Your task to perform on an android device: search for starred emails in the gmail app Image 0: 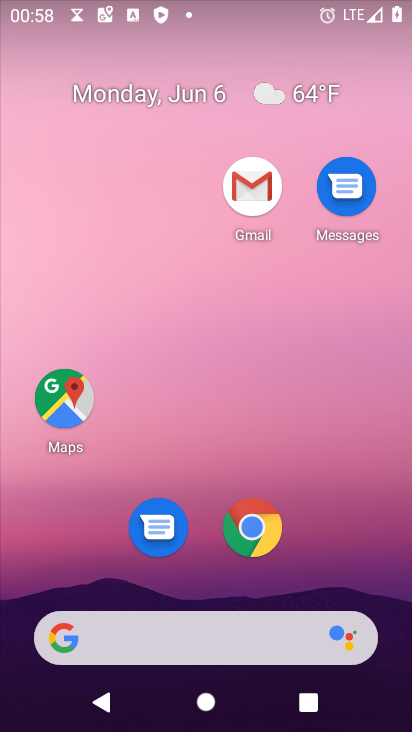
Step 0: drag from (318, 490) to (285, 60)
Your task to perform on an android device: search for starred emails in the gmail app Image 1: 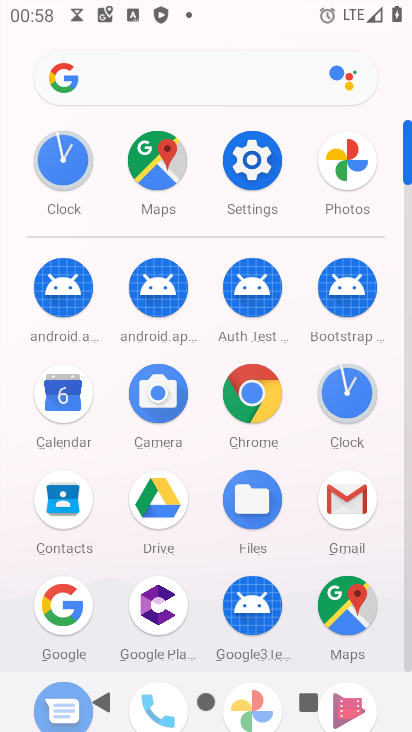
Step 1: click (352, 510)
Your task to perform on an android device: search for starred emails in the gmail app Image 2: 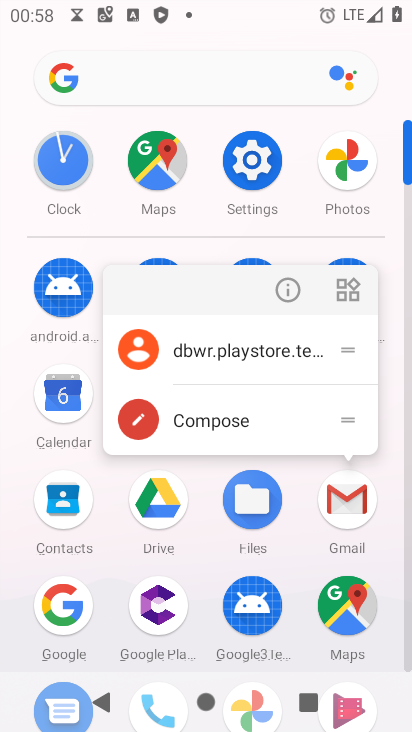
Step 2: click (357, 499)
Your task to perform on an android device: search for starred emails in the gmail app Image 3: 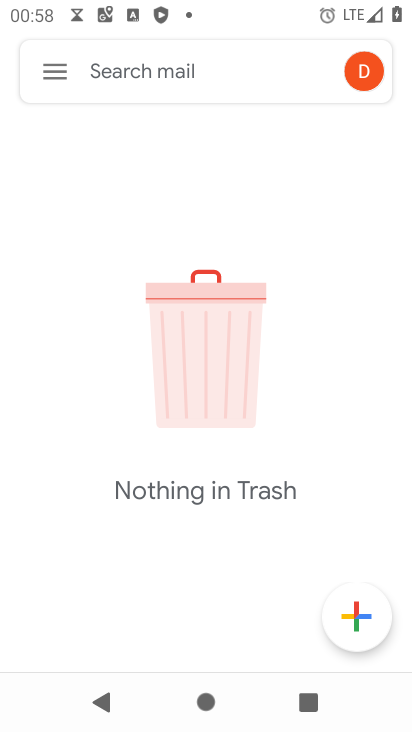
Step 3: click (46, 58)
Your task to perform on an android device: search for starred emails in the gmail app Image 4: 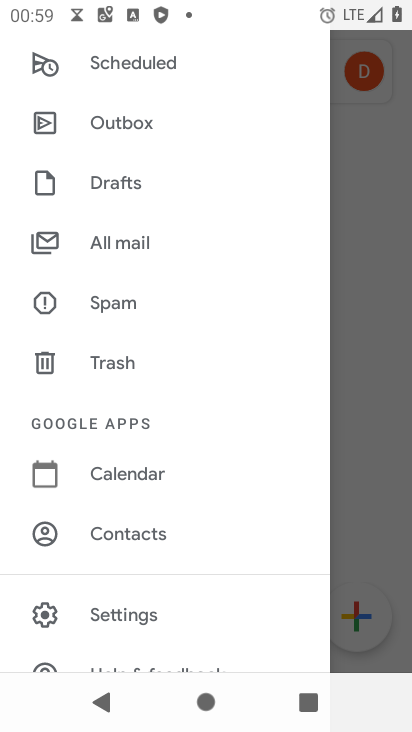
Step 4: drag from (171, 535) to (177, 193)
Your task to perform on an android device: search for starred emails in the gmail app Image 5: 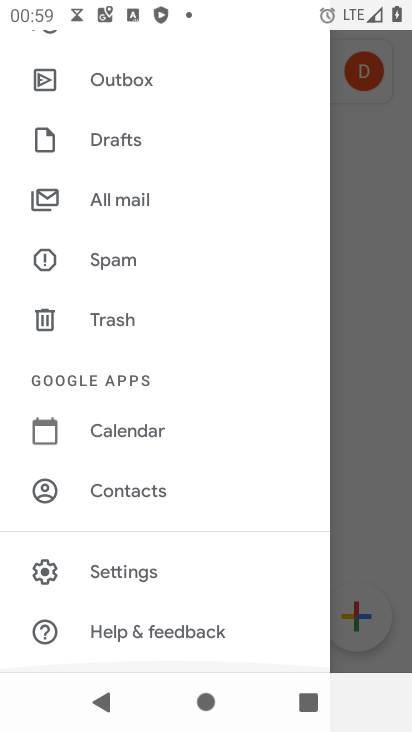
Step 5: drag from (181, 129) to (209, 515)
Your task to perform on an android device: search for starred emails in the gmail app Image 6: 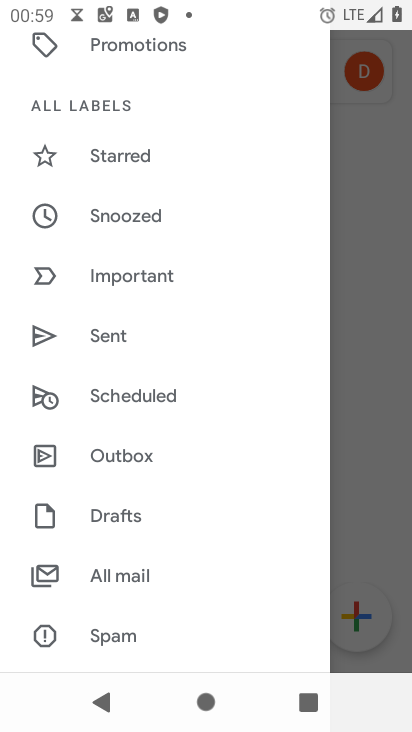
Step 6: click (160, 150)
Your task to perform on an android device: search for starred emails in the gmail app Image 7: 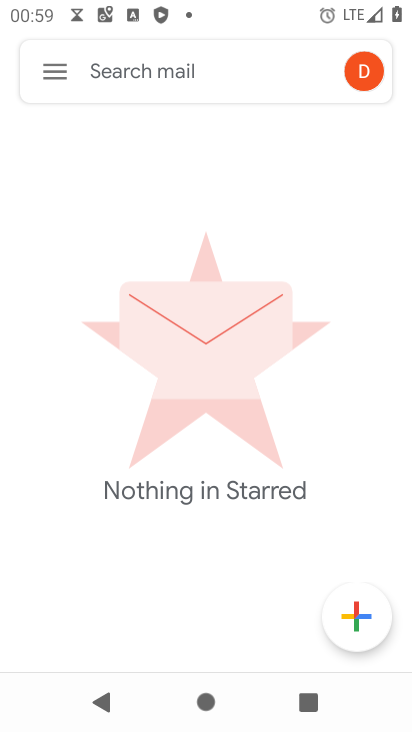
Step 7: task complete